Your task to perform on an android device: check out phone information Image 0: 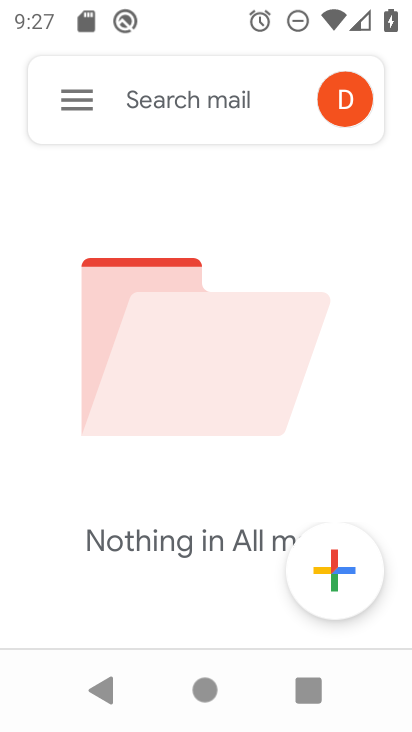
Step 0: press home button
Your task to perform on an android device: check out phone information Image 1: 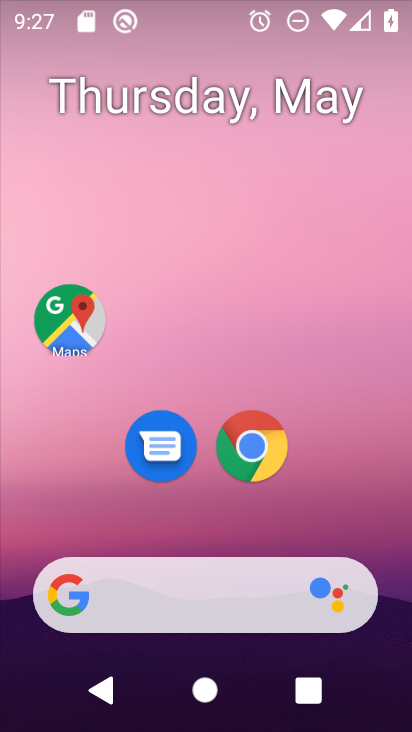
Step 1: drag from (363, 518) to (360, 144)
Your task to perform on an android device: check out phone information Image 2: 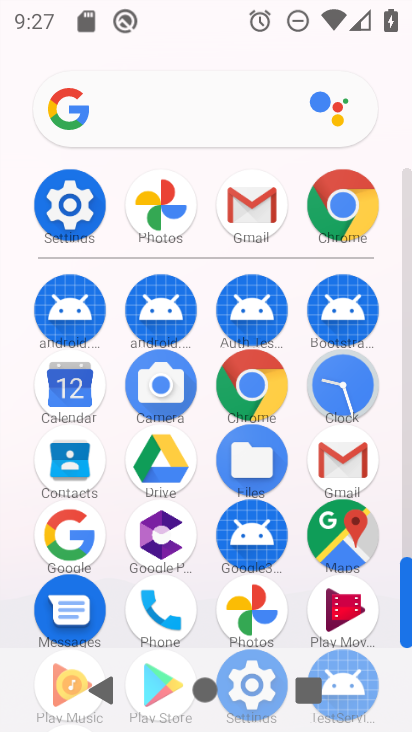
Step 2: click (69, 220)
Your task to perform on an android device: check out phone information Image 3: 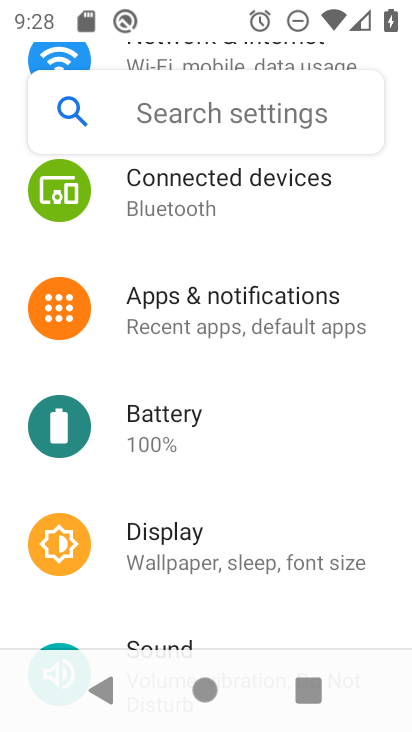
Step 3: drag from (338, 505) to (366, 207)
Your task to perform on an android device: check out phone information Image 4: 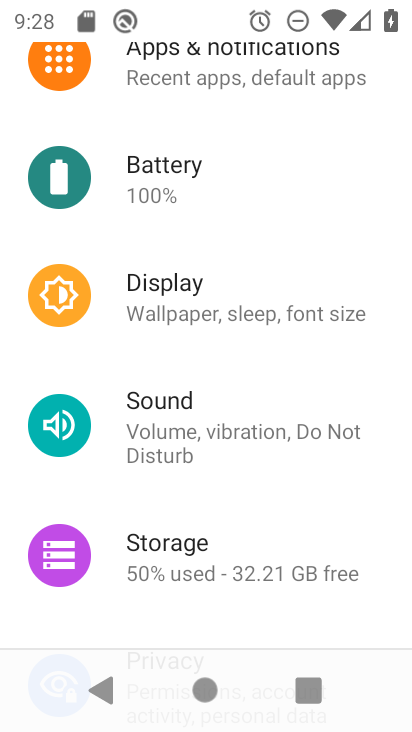
Step 4: drag from (314, 144) to (300, 624)
Your task to perform on an android device: check out phone information Image 5: 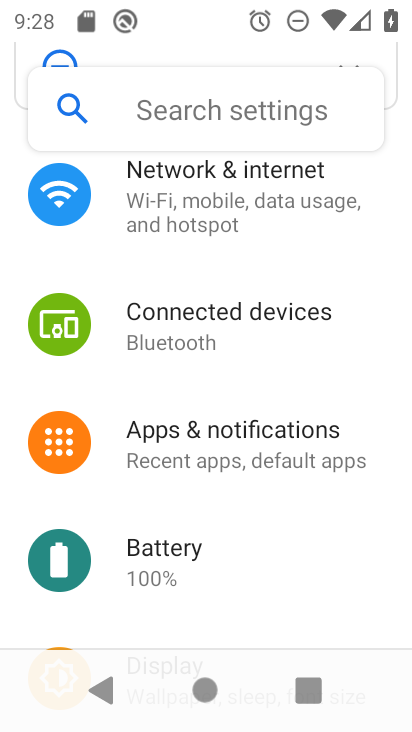
Step 5: drag from (320, 227) to (290, 546)
Your task to perform on an android device: check out phone information Image 6: 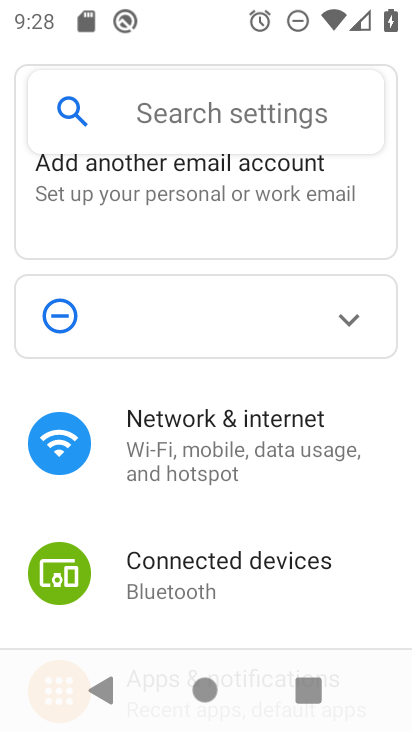
Step 6: drag from (263, 613) to (261, 296)
Your task to perform on an android device: check out phone information Image 7: 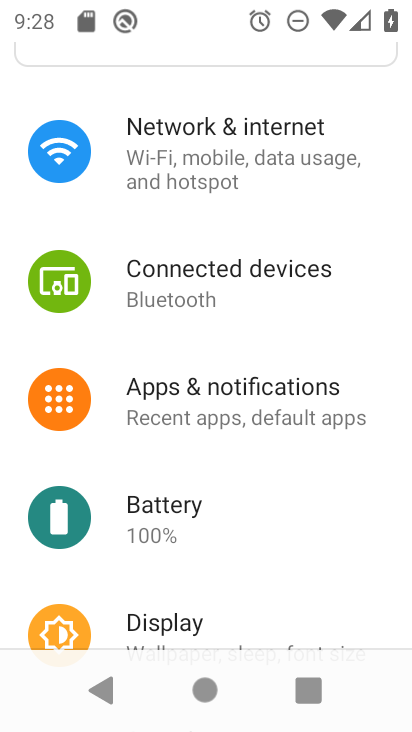
Step 7: drag from (246, 595) to (268, 276)
Your task to perform on an android device: check out phone information Image 8: 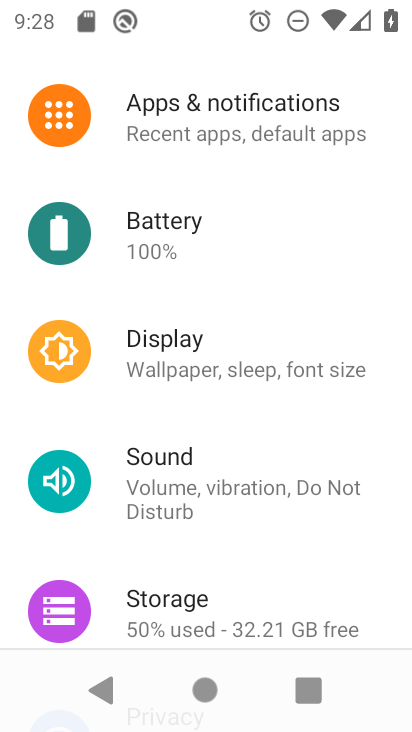
Step 8: drag from (300, 616) to (291, 181)
Your task to perform on an android device: check out phone information Image 9: 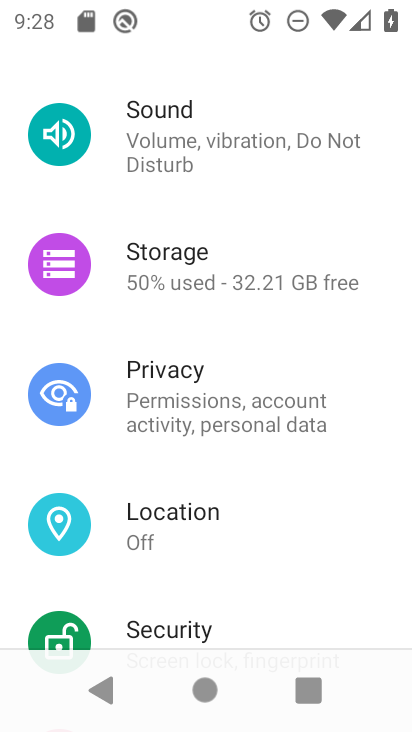
Step 9: drag from (261, 620) to (298, 200)
Your task to perform on an android device: check out phone information Image 10: 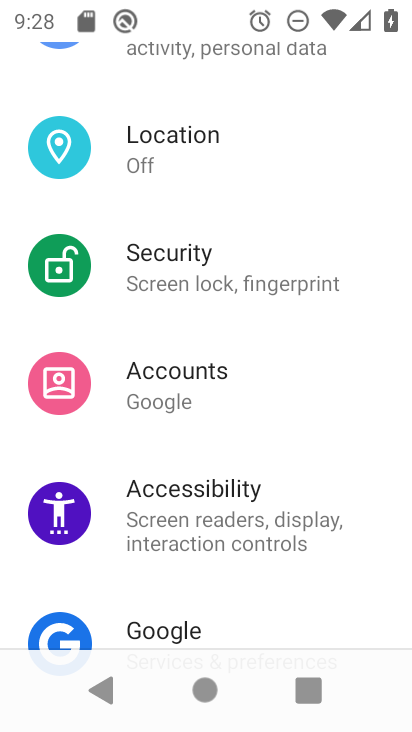
Step 10: drag from (253, 602) to (291, 206)
Your task to perform on an android device: check out phone information Image 11: 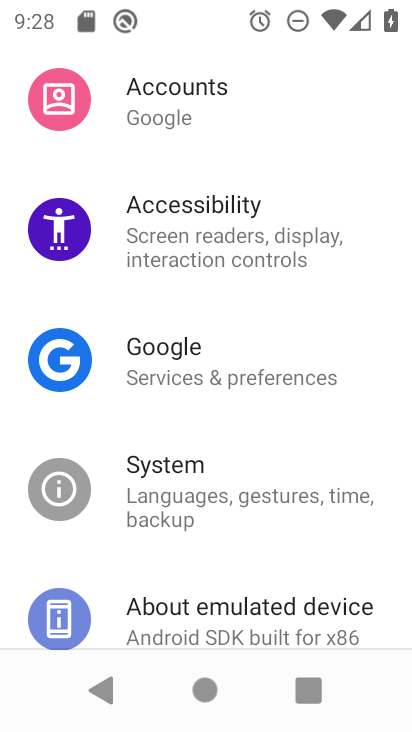
Step 11: click (242, 628)
Your task to perform on an android device: check out phone information Image 12: 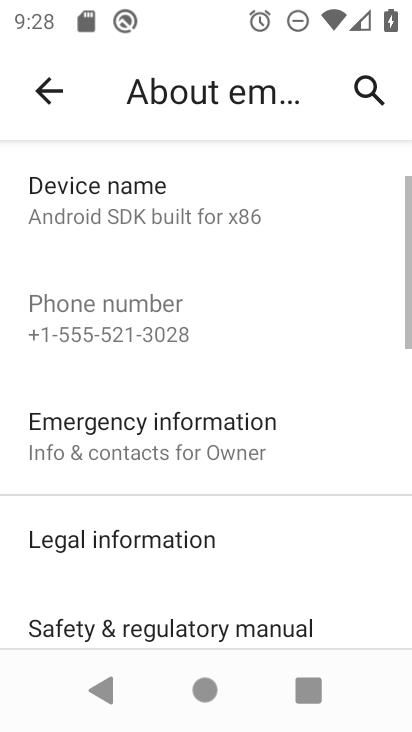
Step 12: task complete